Your task to perform on an android device: turn off location Image 0: 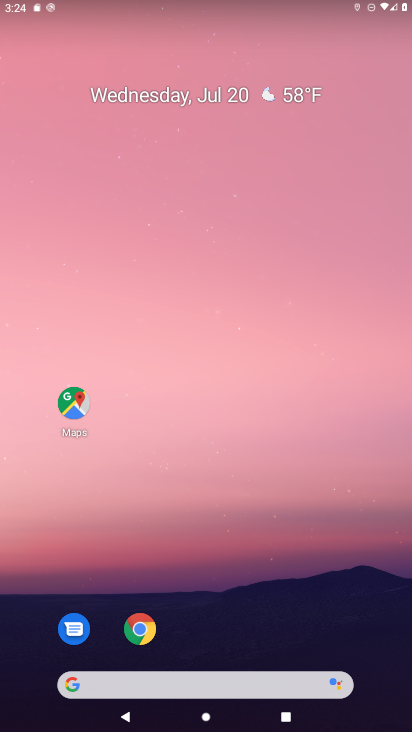
Step 0: drag from (294, 615) to (306, 107)
Your task to perform on an android device: turn off location Image 1: 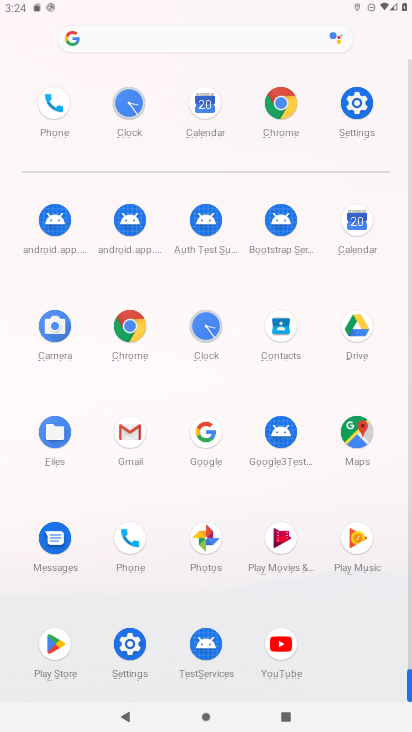
Step 1: click (141, 640)
Your task to perform on an android device: turn off location Image 2: 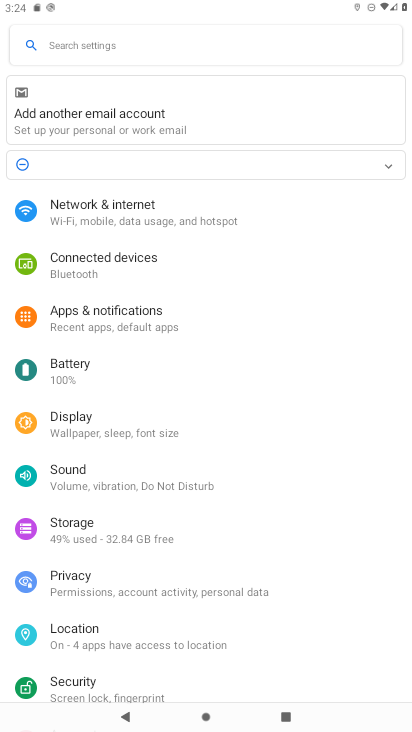
Step 2: click (93, 635)
Your task to perform on an android device: turn off location Image 3: 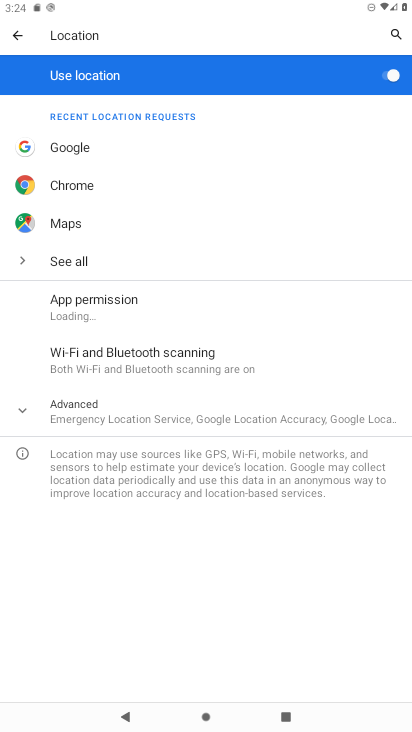
Step 3: click (248, 71)
Your task to perform on an android device: turn off location Image 4: 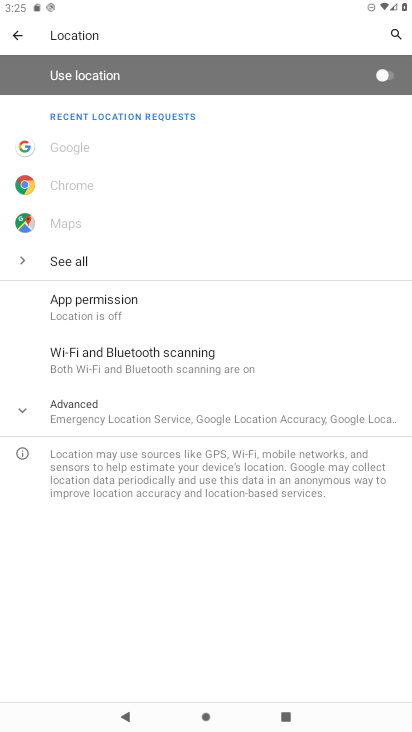
Step 4: task complete